Your task to perform on an android device: Open wifi settings Image 0: 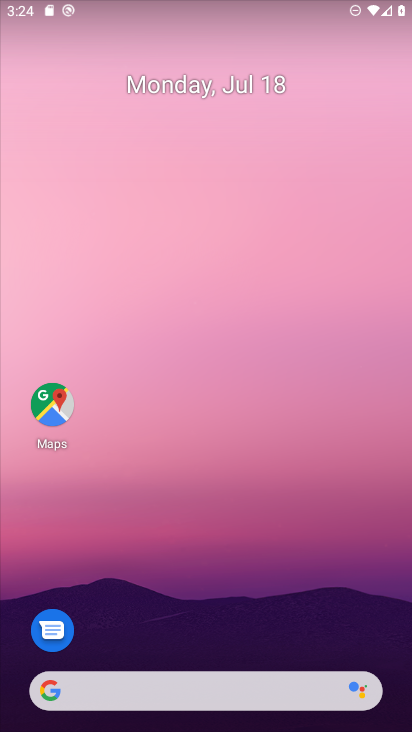
Step 0: drag from (273, 599) to (301, 38)
Your task to perform on an android device: Open wifi settings Image 1: 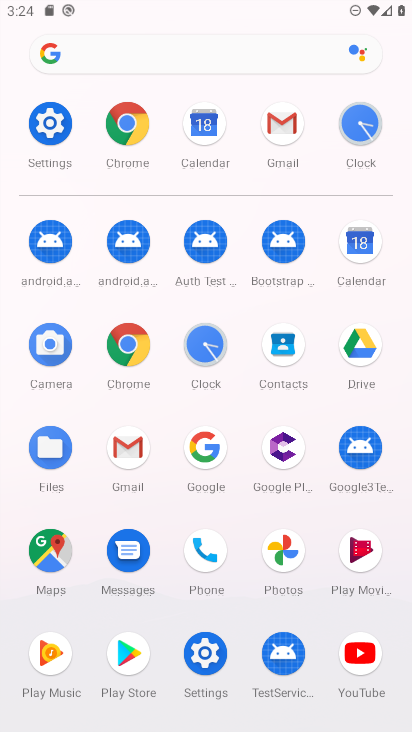
Step 1: click (57, 125)
Your task to perform on an android device: Open wifi settings Image 2: 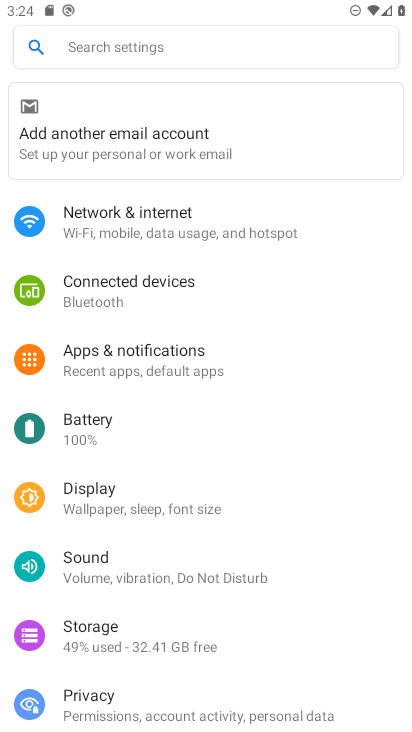
Step 2: click (130, 215)
Your task to perform on an android device: Open wifi settings Image 3: 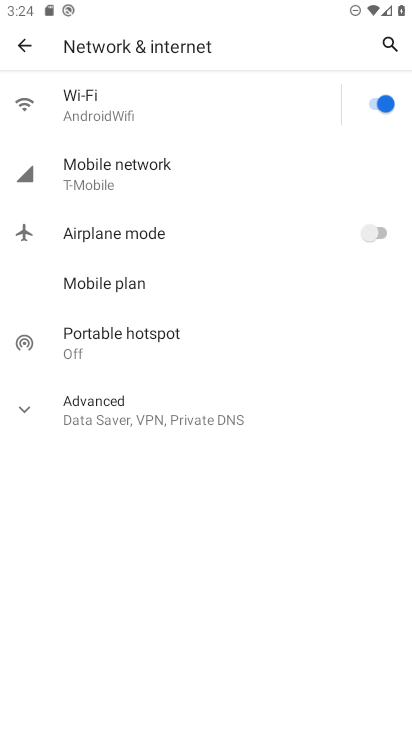
Step 3: click (153, 111)
Your task to perform on an android device: Open wifi settings Image 4: 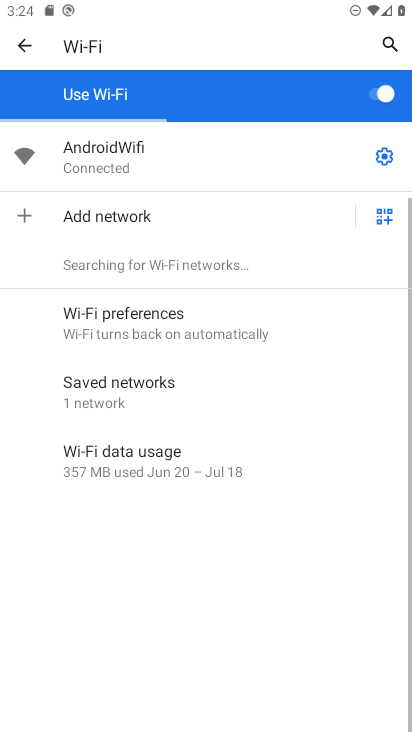
Step 4: task complete